Your task to perform on an android device: turn on the 24-hour format for clock Image 0: 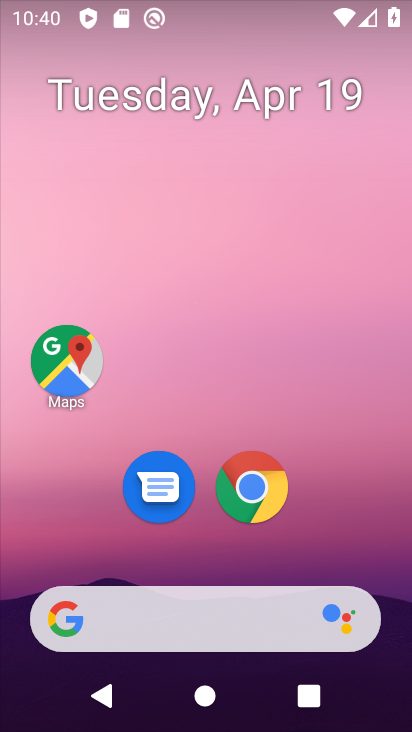
Step 0: click (238, 154)
Your task to perform on an android device: turn on the 24-hour format for clock Image 1: 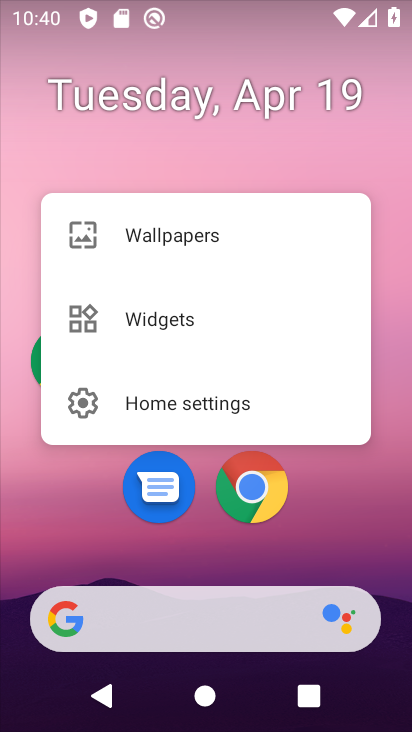
Step 1: click (345, 544)
Your task to perform on an android device: turn on the 24-hour format for clock Image 2: 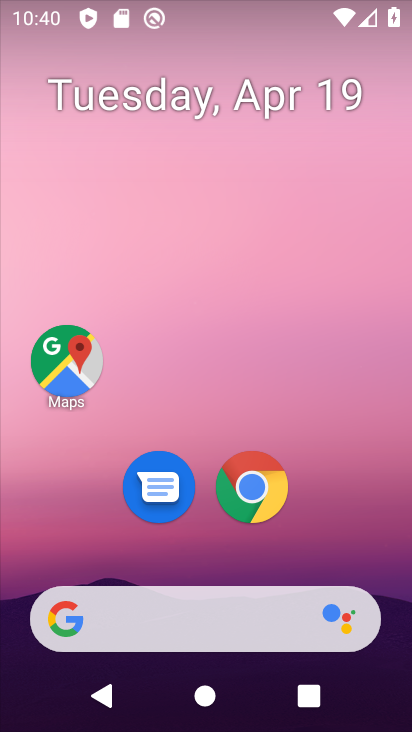
Step 2: drag from (352, 565) to (408, 198)
Your task to perform on an android device: turn on the 24-hour format for clock Image 3: 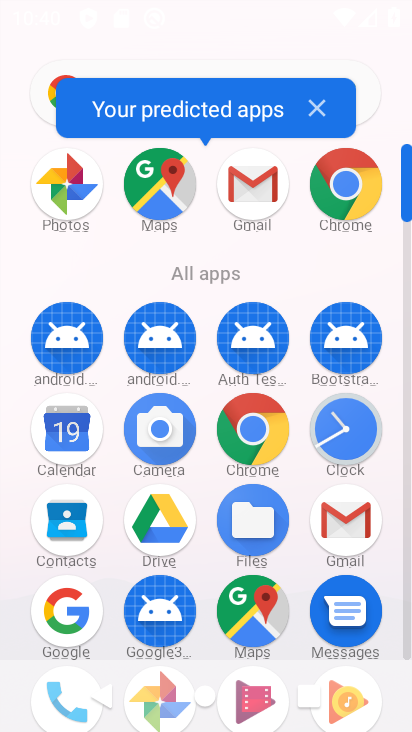
Step 3: click (362, 426)
Your task to perform on an android device: turn on the 24-hour format for clock Image 4: 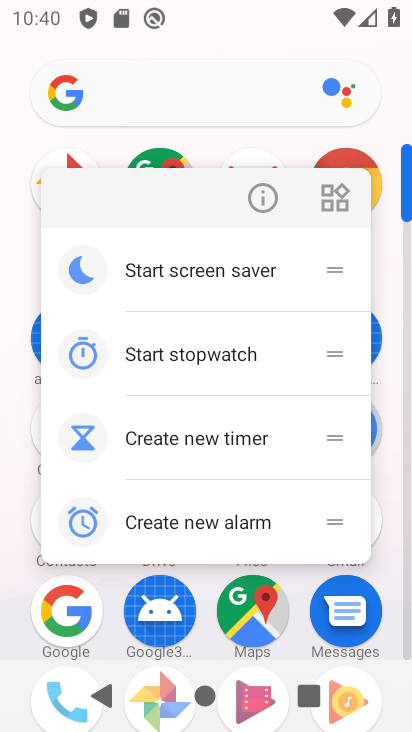
Step 4: click (387, 429)
Your task to perform on an android device: turn on the 24-hour format for clock Image 5: 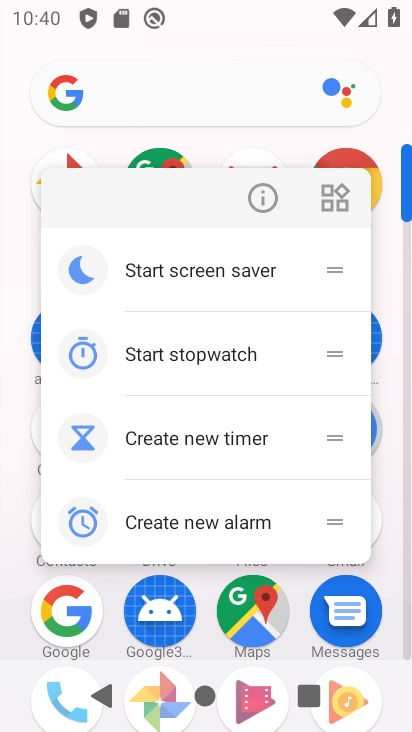
Step 5: press back button
Your task to perform on an android device: turn on the 24-hour format for clock Image 6: 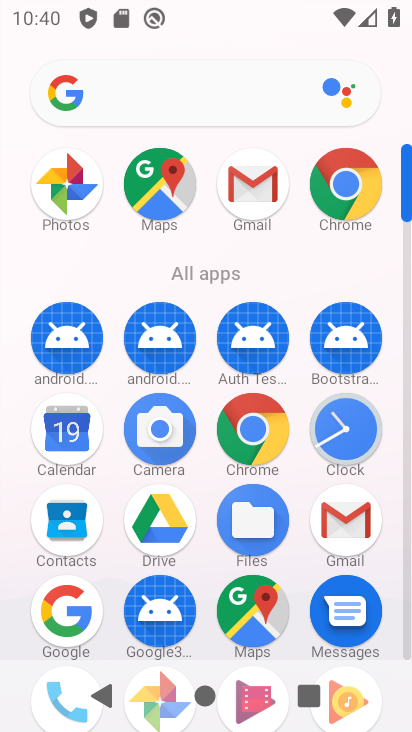
Step 6: click (363, 430)
Your task to perform on an android device: turn on the 24-hour format for clock Image 7: 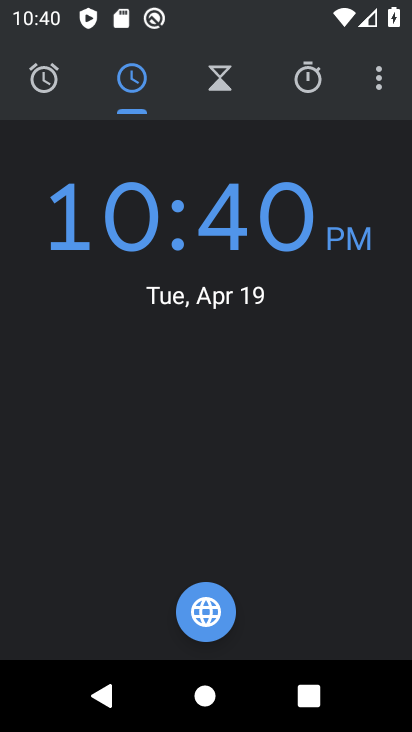
Step 7: click (399, 87)
Your task to perform on an android device: turn on the 24-hour format for clock Image 8: 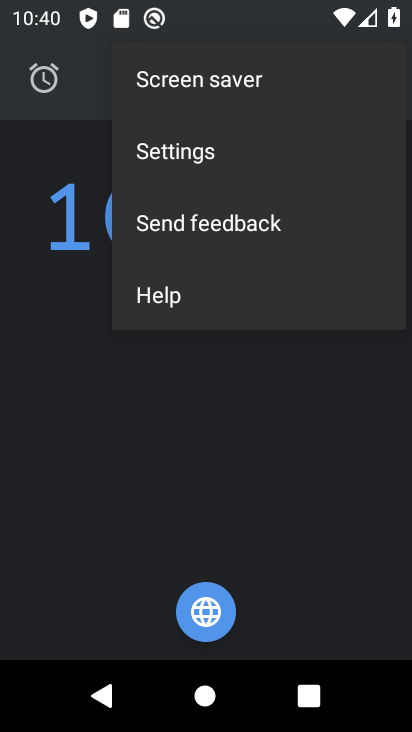
Step 8: click (326, 145)
Your task to perform on an android device: turn on the 24-hour format for clock Image 9: 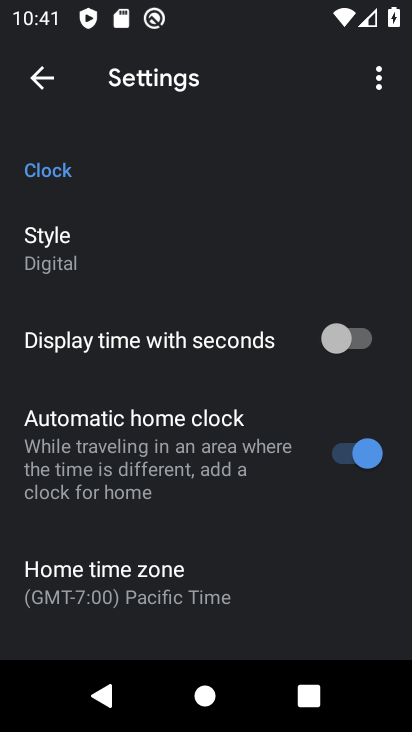
Step 9: drag from (181, 572) to (305, 106)
Your task to perform on an android device: turn on the 24-hour format for clock Image 10: 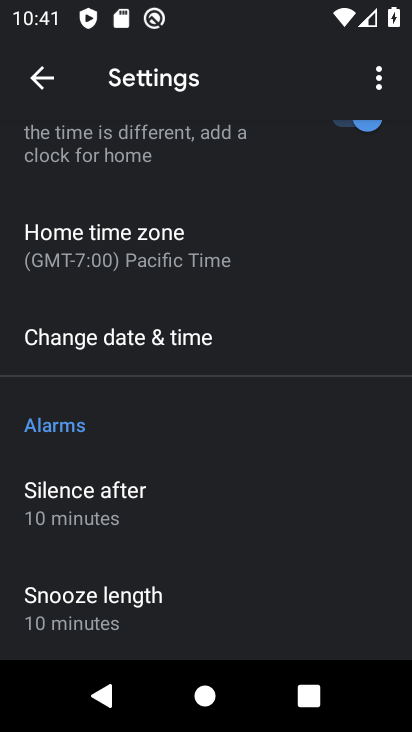
Step 10: click (234, 351)
Your task to perform on an android device: turn on the 24-hour format for clock Image 11: 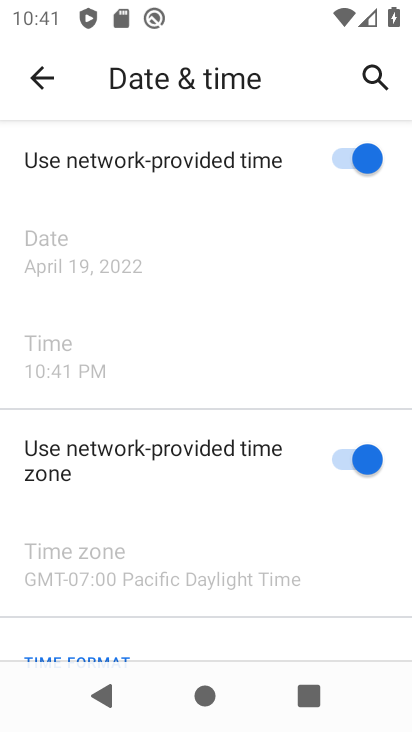
Step 11: drag from (129, 649) to (390, 107)
Your task to perform on an android device: turn on the 24-hour format for clock Image 12: 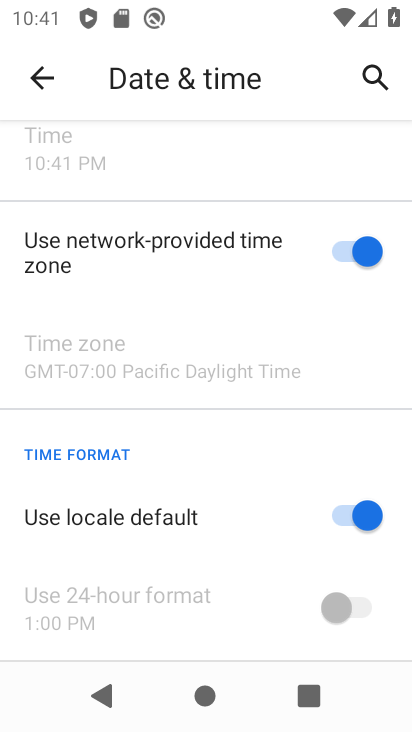
Step 12: click (349, 510)
Your task to perform on an android device: turn on the 24-hour format for clock Image 13: 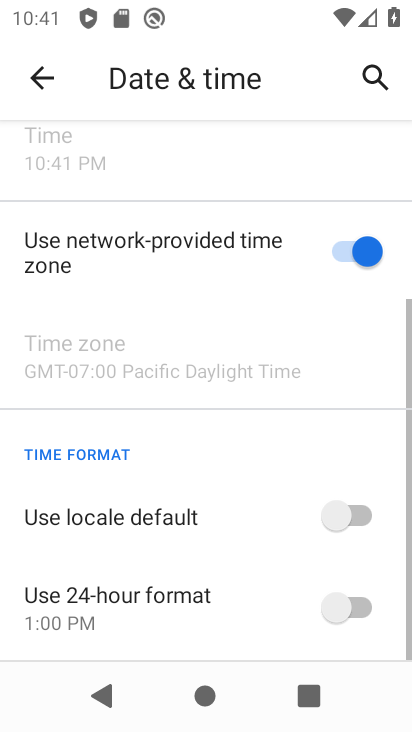
Step 13: click (383, 610)
Your task to perform on an android device: turn on the 24-hour format for clock Image 14: 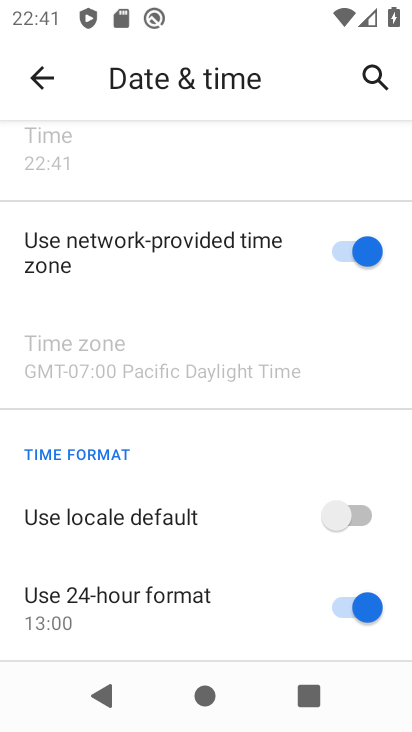
Step 14: task complete